Your task to perform on an android device: Do I have any events today? Image 0: 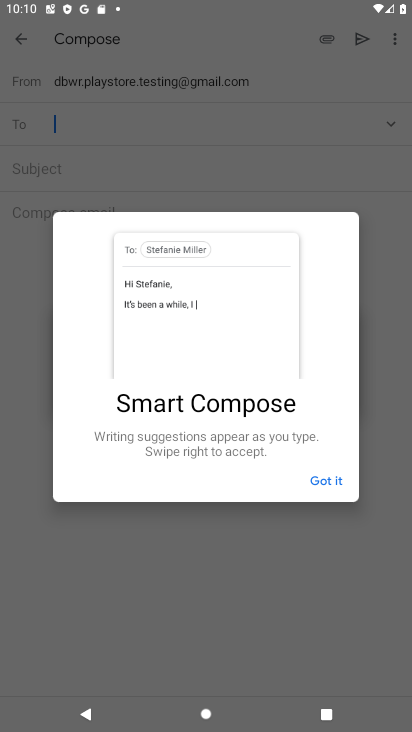
Step 0: press home button
Your task to perform on an android device: Do I have any events today? Image 1: 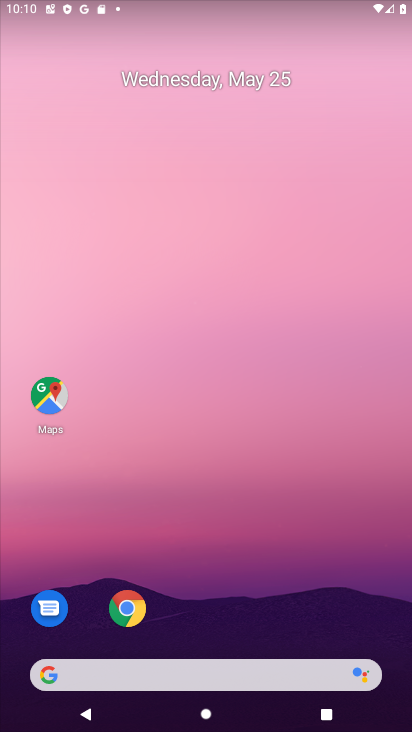
Step 1: drag from (272, 647) to (228, 32)
Your task to perform on an android device: Do I have any events today? Image 2: 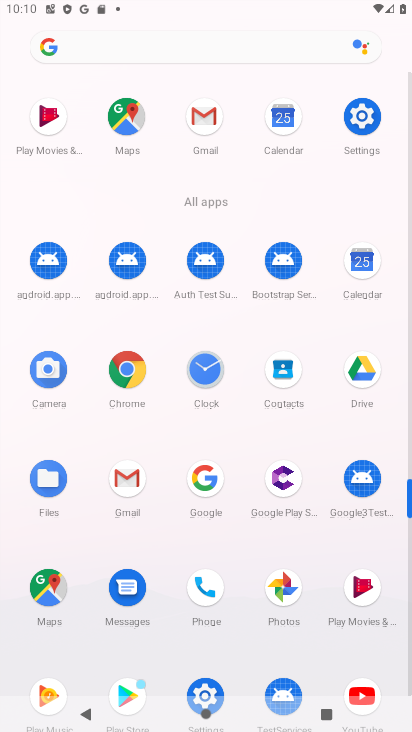
Step 2: click (288, 119)
Your task to perform on an android device: Do I have any events today? Image 3: 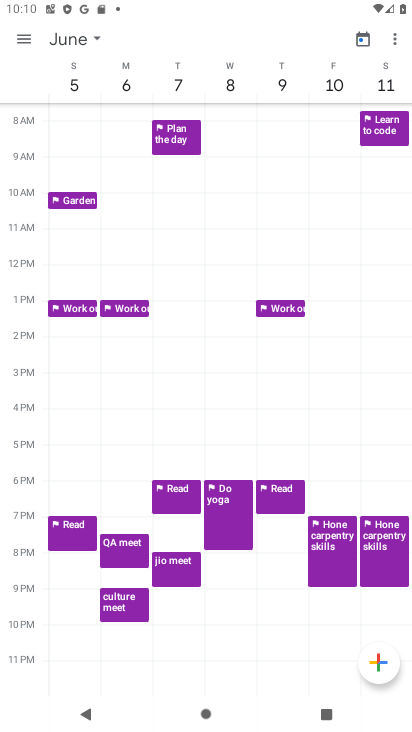
Step 3: click (370, 43)
Your task to perform on an android device: Do I have any events today? Image 4: 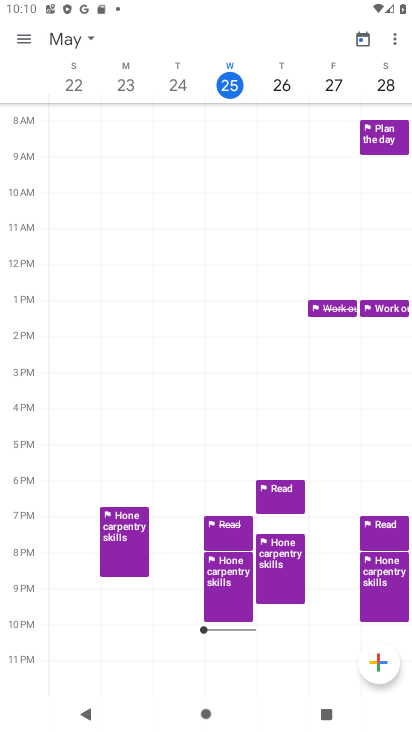
Step 4: click (30, 43)
Your task to perform on an android device: Do I have any events today? Image 5: 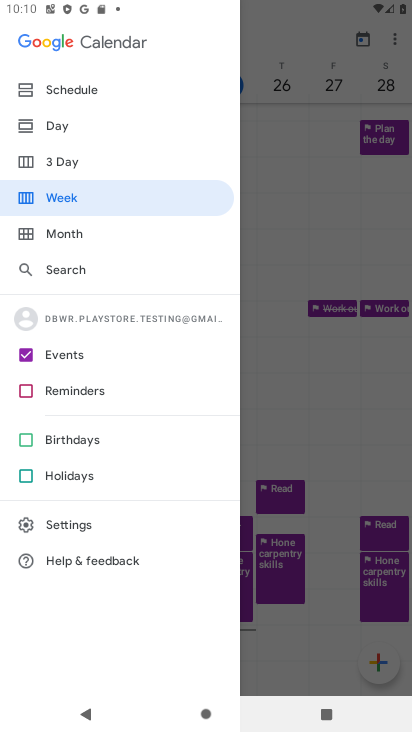
Step 5: click (63, 129)
Your task to perform on an android device: Do I have any events today? Image 6: 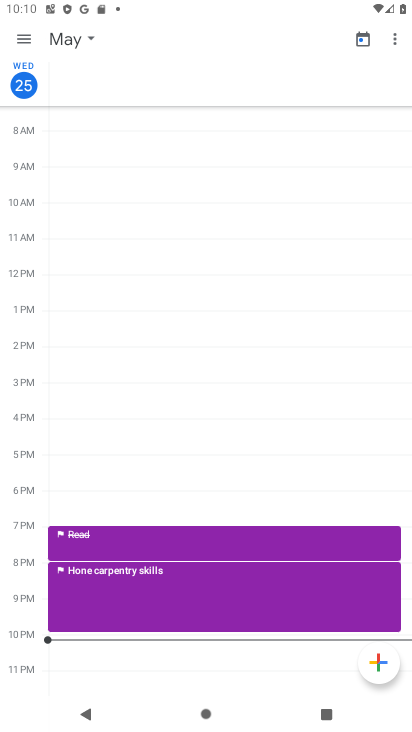
Step 6: task complete